Your task to perform on an android device: Turn on the flashlight Image 0: 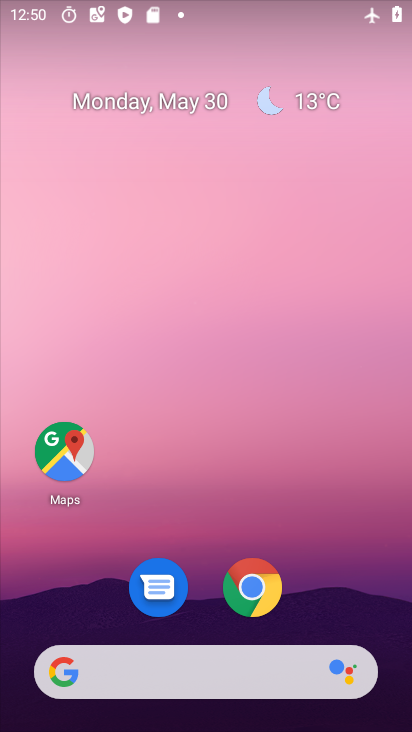
Step 0: drag from (329, 466) to (310, 61)
Your task to perform on an android device: Turn on the flashlight Image 1: 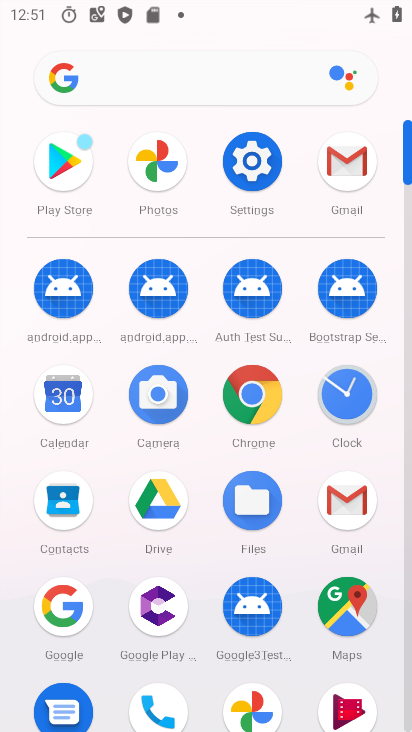
Step 1: click (255, 167)
Your task to perform on an android device: Turn on the flashlight Image 2: 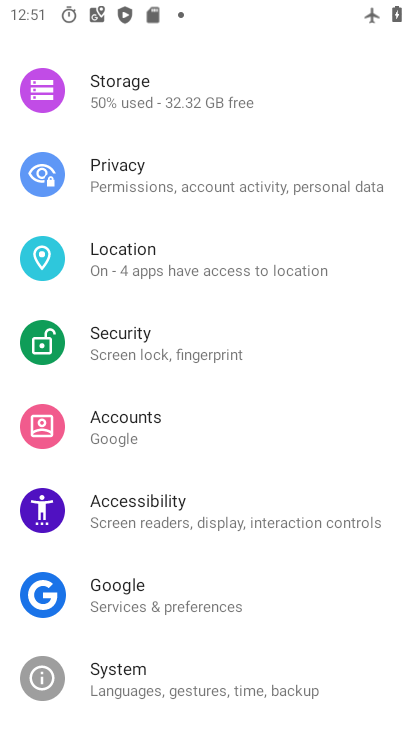
Step 2: drag from (177, 452) to (233, 13)
Your task to perform on an android device: Turn on the flashlight Image 3: 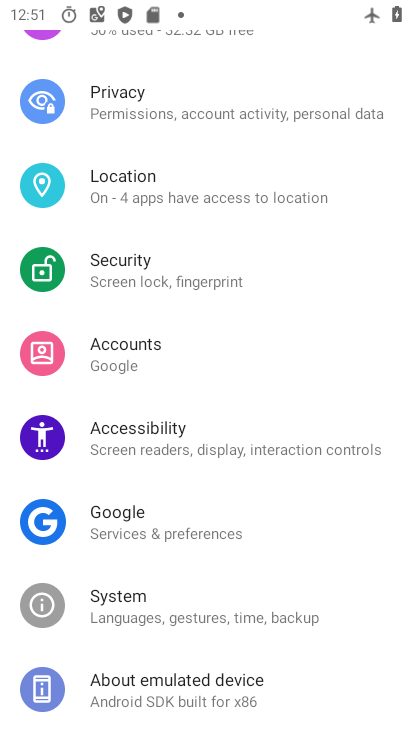
Step 3: drag from (205, 192) to (239, 690)
Your task to perform on an android device: Turn on the flashlight Image 4: 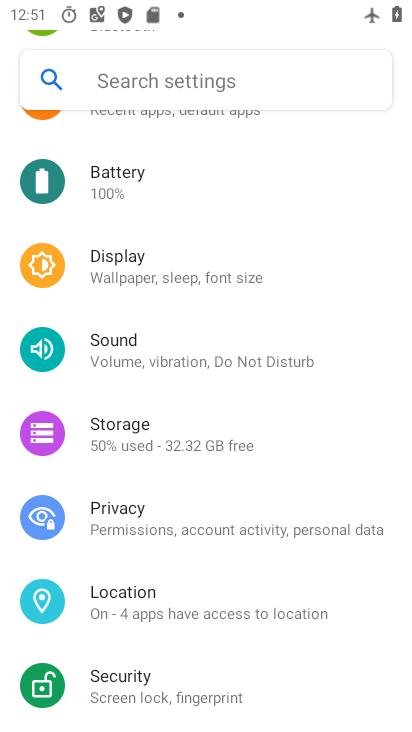
Step 4: drag from (238, 227) to (250, 615)
Your task to perform on an android device: Turn on the flashlight Image 5: 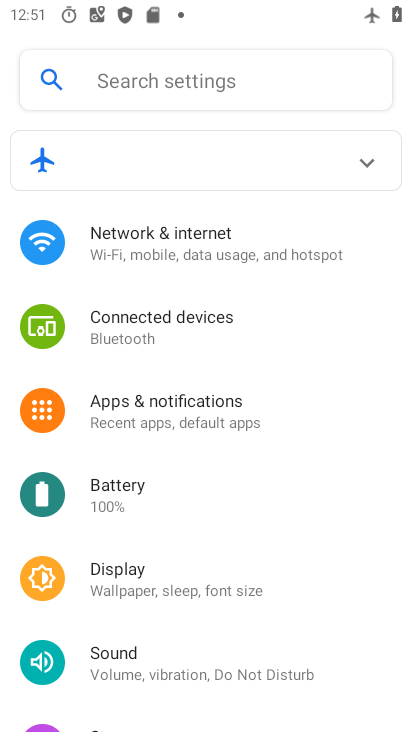
Step 5: click (149, 603)
Your task to perform on an android device: Turn on the flashlight Image 6: 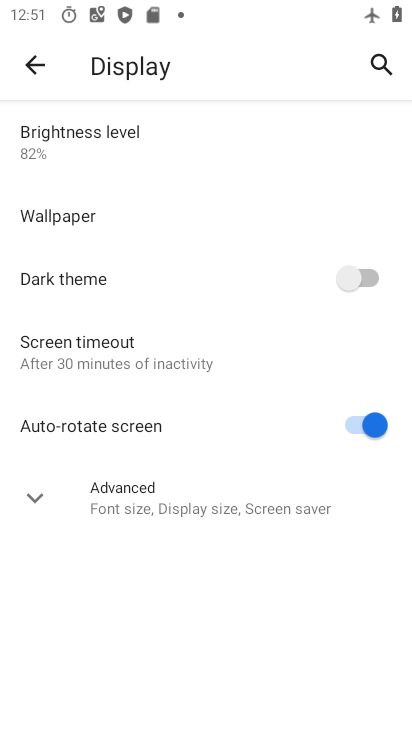
Step 6: task complete